Your task to perform on an android device: What's the weather going to be this weekend? Image 0: 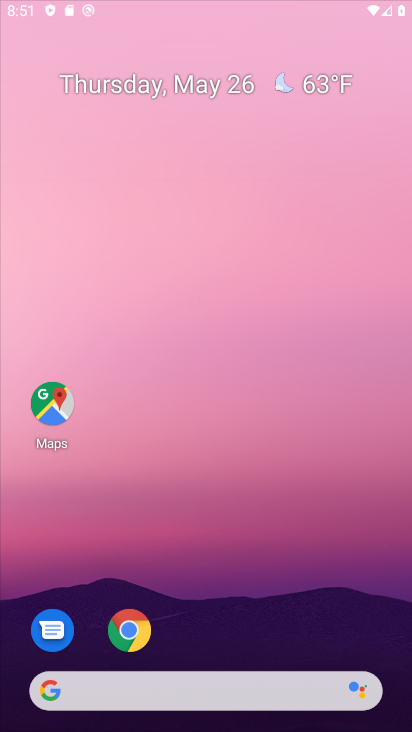
Step 0: drag from (226, 7) to (198, 109)
Your task to perform on an android device: What's the weather going to be this weekend? Image 1: 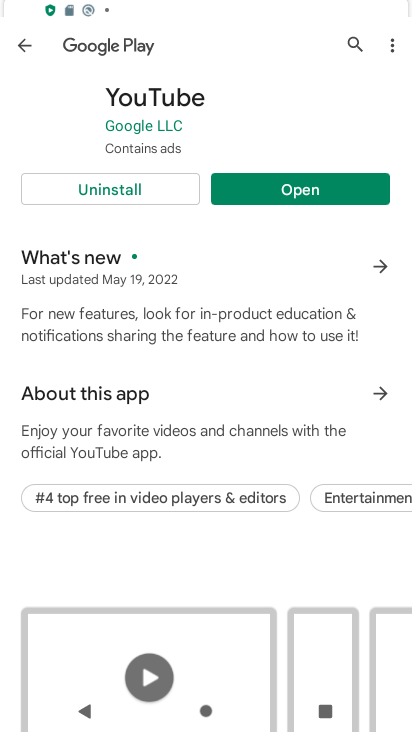
Step 1: drag from (256, 544) to (252, 171)
Your task to perform on an android device: What's the weather going to be this weekend? Image 2: 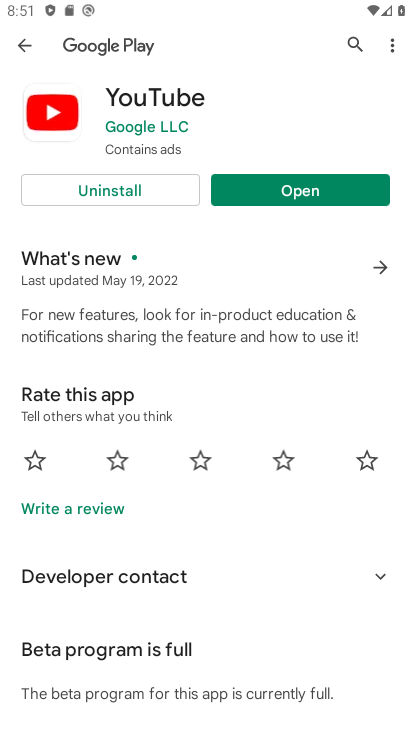
Step 2: press back button
Your task to perform on an android device: What's the weather going to be this weekend? Image 3: 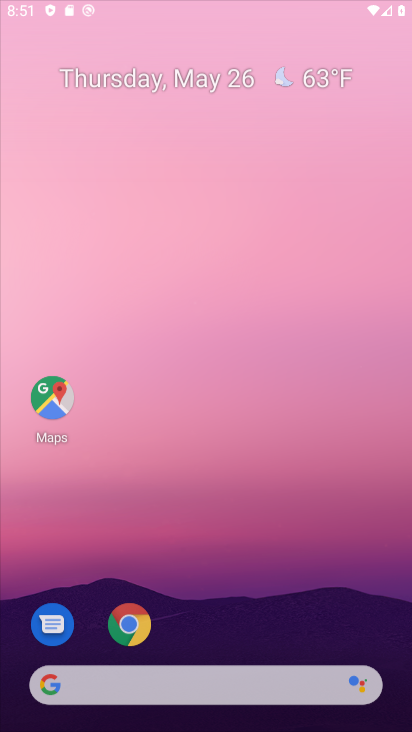
Step 3: press back button
Your task to perform on an android device: What's the weather going to be this weekend? Image 4: 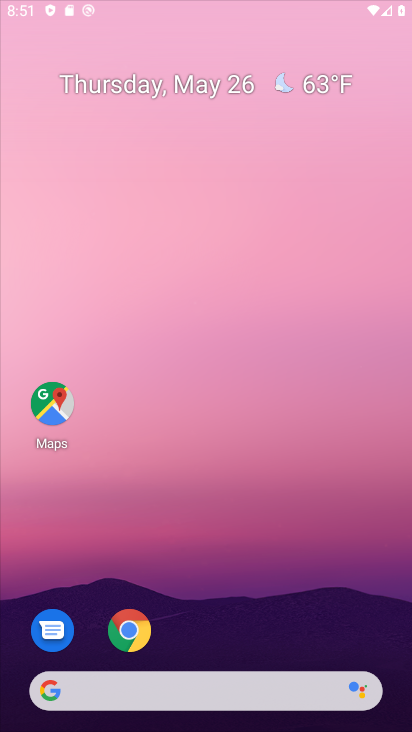
Step 4: press back button
Your task to perform on an android device: What's the weather going to be this weekend? Image 5: 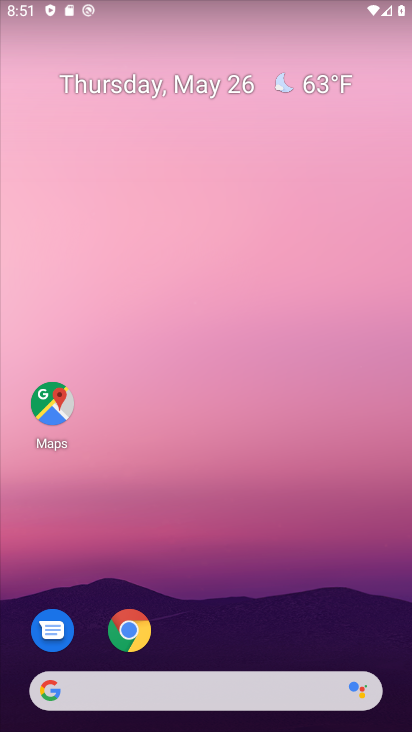
Step 5: drag from (5, 235) to (411, 424)
Your task to perform on an android device: What's the weather going to be this weekend? Image 6: 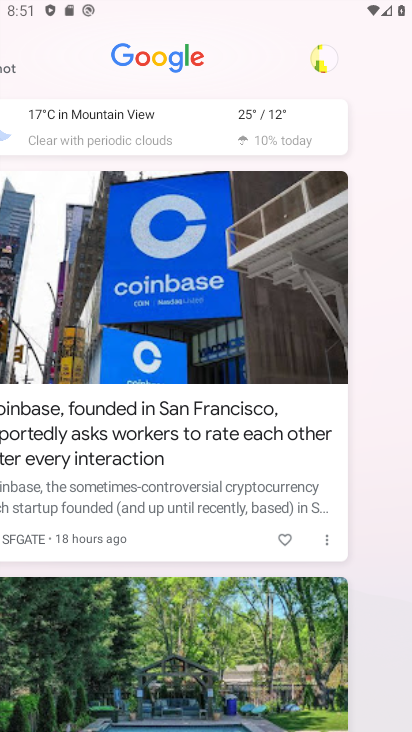
Step 6: drag from (152, 271) to (345, 431)
Your task to perform on an android device: What's the weather going to be this weekend? Image 7: 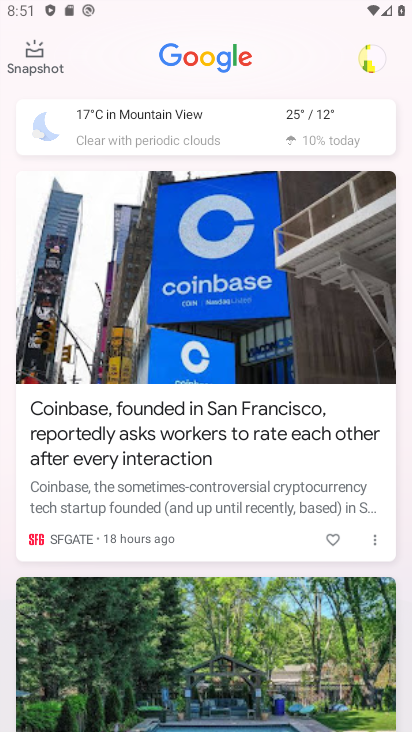
Step 7: click (139, 140)
Your task to perform on an android device: What's the weather going to be this weekend? Image 8: 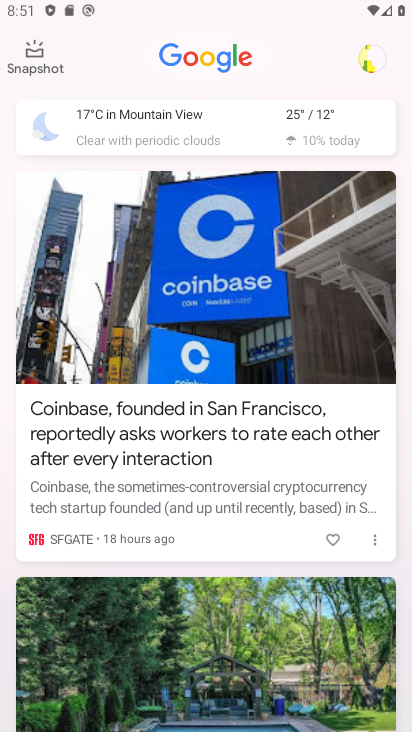
Step 8: click (147, 135)
Your task to perform on an android device: What's the weather going to be this weekend? Image 9: 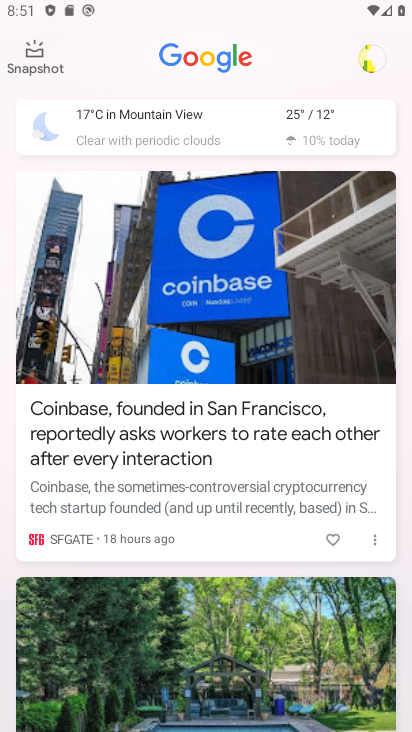
Step 9: click (180, 146)
Your task to perform on an android device: What's the weather going to be this weekend? Image 10: 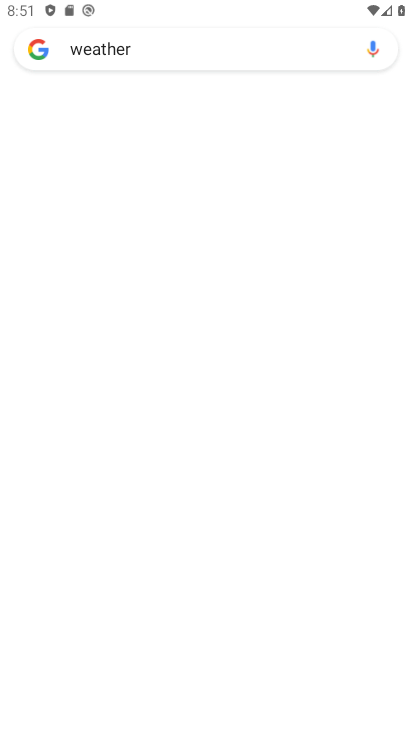
Step 10: click (187, 142)
Your task to perform on an android device: What's the weather going to be this weekend? Image 11: 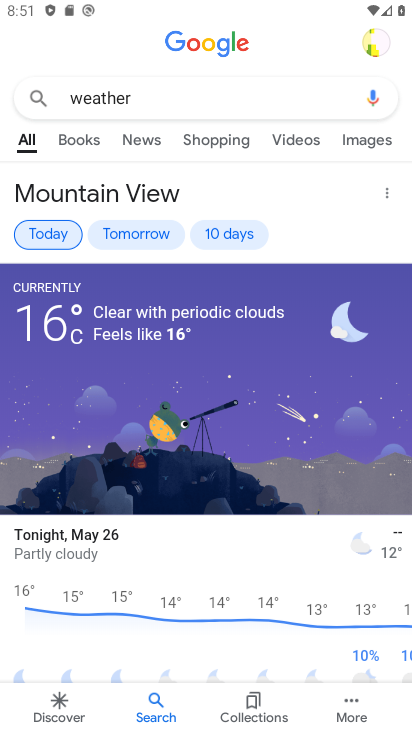
Step 11: click (241, 228)
Your task to perform on an android device: What's the weather going to be this weekend? Image 12: 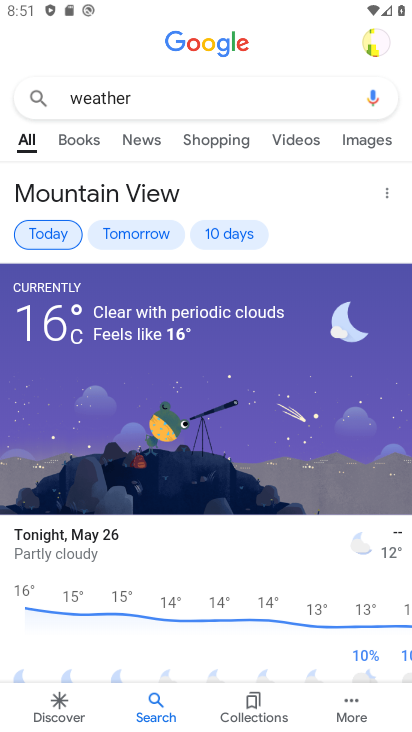
Step 12: click (248, 230)
Your task to perform on an android device: What's the weather going to be this weekend? Image 13: 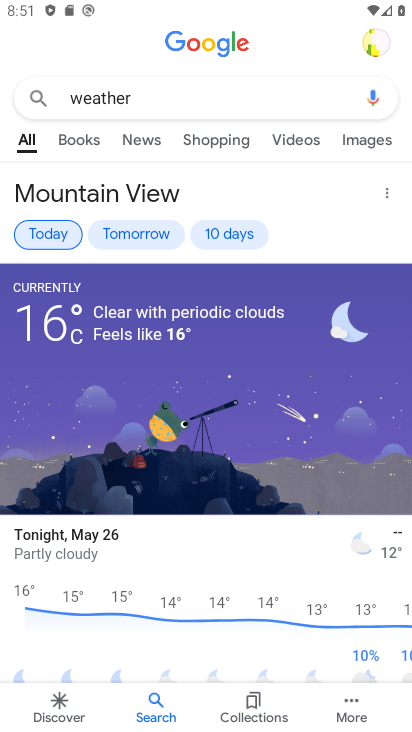
Step 13: click (248, 230)
Your task to perform on an android device: What's the weather going to be this weekend? Image 14: 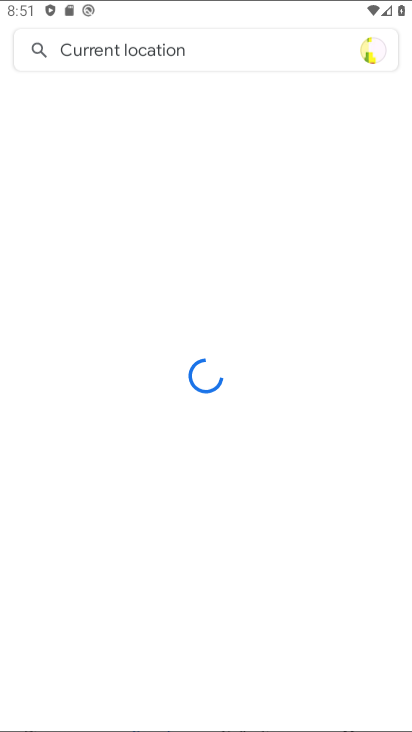
Step 14: click (248, 230)
Your task to perform on an android device: What's the weather going to be this weekend? Image 15: 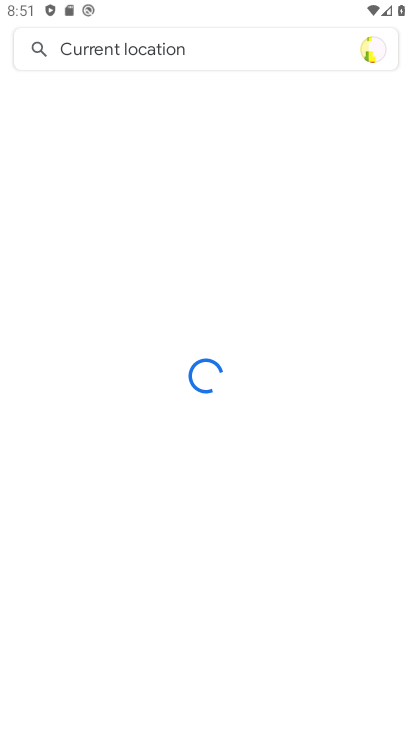
Step 15: click (248, 230)
Your task to perform on an android device: What's the weather going to be this weekend? Image 16: 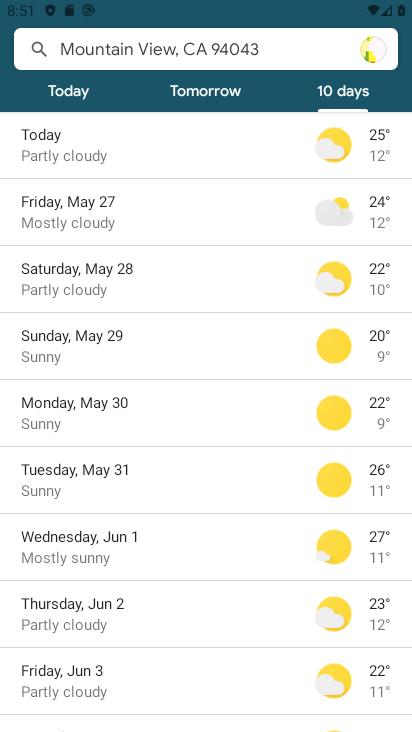
Step 16: click (115, 276)
Your task to perform on an android device: What's the weather going to be this weekend? Image 17: 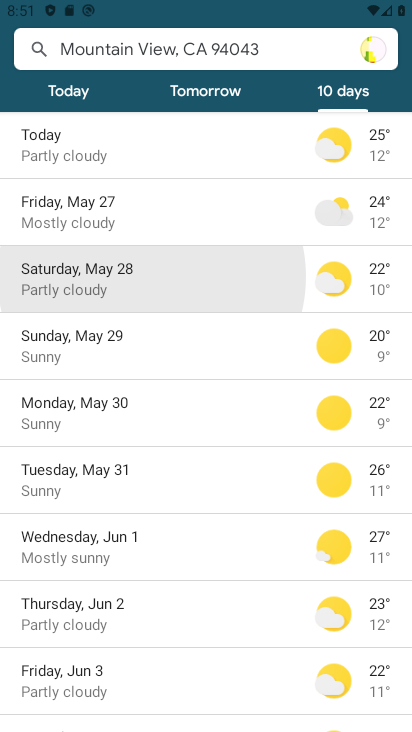
Step 17: click (115, 276)
Your task to perform on an android device: What's the weather going to be this weekend? Image 18: 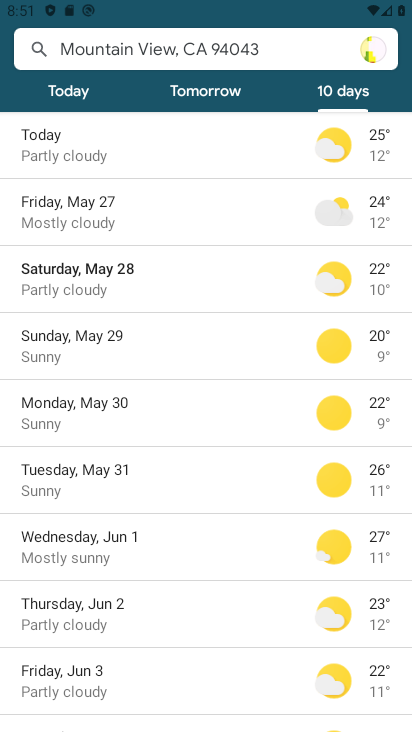
Step 18: click (115, 276)
Your task to perform on an android device: What's the weather going to be this weekend? Image 19: 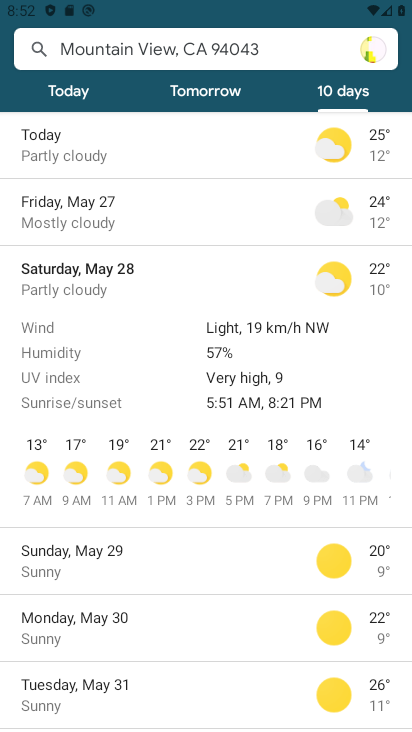
Step 19: task complete